Your task to perform on an android device: Go to Google Image 0: 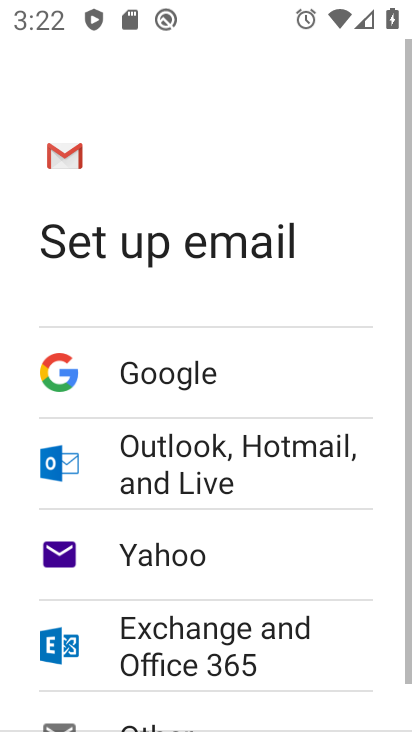
Step 0: press home button
Your task to perform on an android device: Go to Google Image 1: 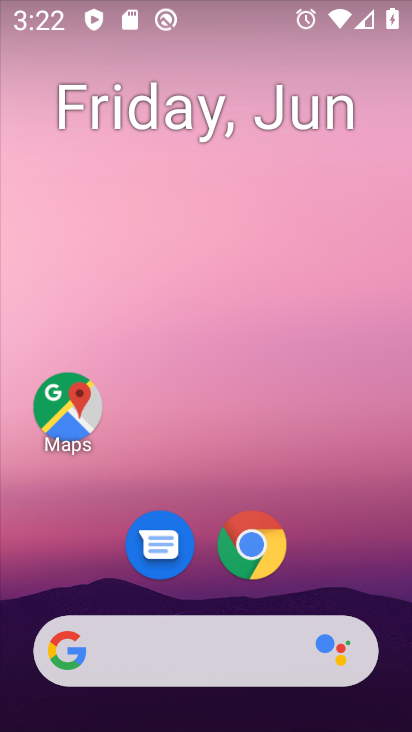
Step 1: drag from (311, 576) to (346, 63)
Your task to perform on an android device: Go to Google Image 2: 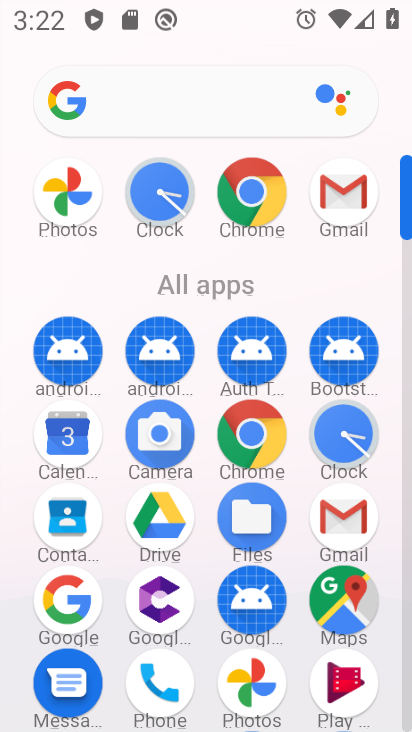
Step 2: click (69, 602)
Your task to perform on an android device: Go to Google Image 3: 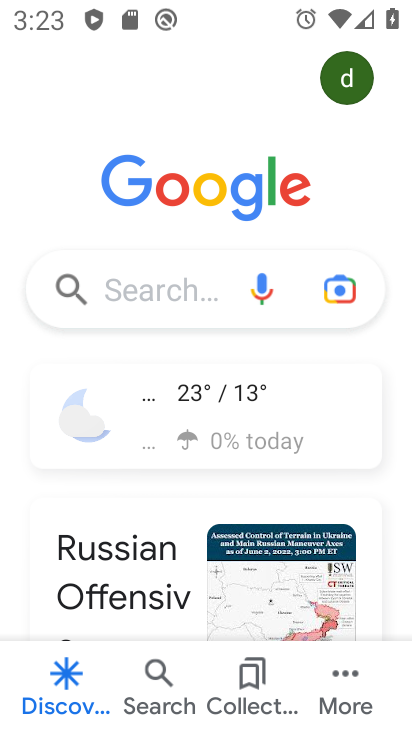
Step 3: task complete